Your task to perform on an android device: What's on my calendar tomorrow? Image 0: 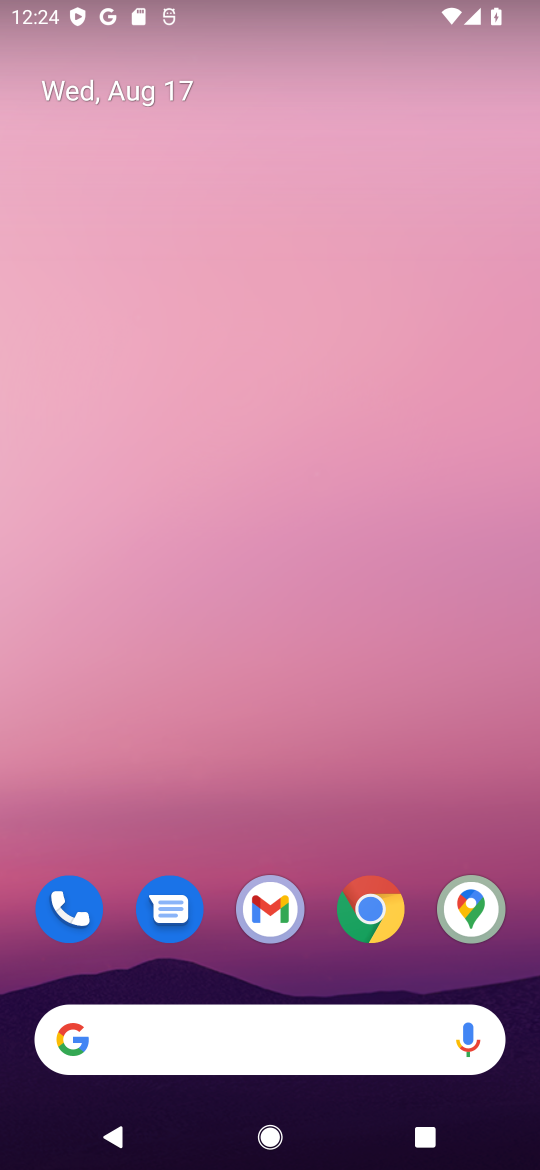
Step 0: drag from (326, 970) to (312, 162)
Your task to perform on an android device: What's on my calendar tomorrow? Image 1: 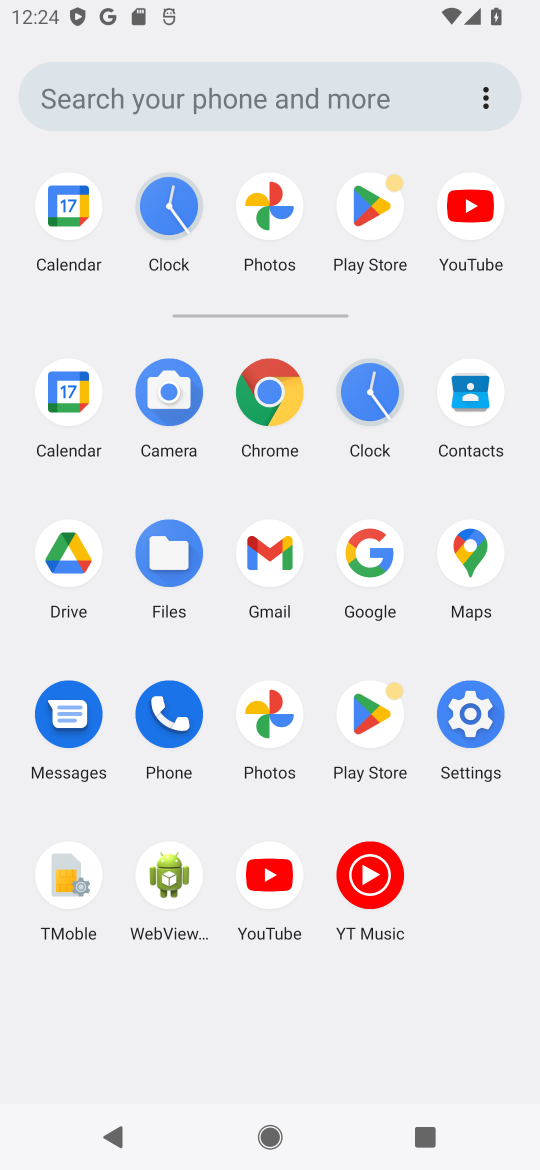
Step 1: click (74, 201)
Your task to perform on an android device: What's on my calendar tomorrow? Image 2: 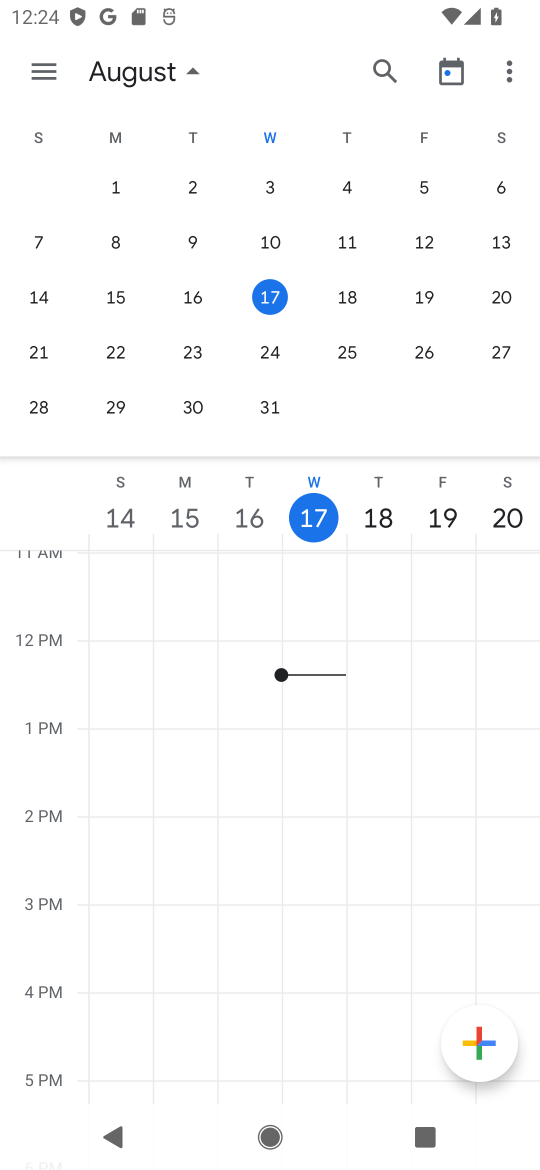
Step 2: click (36, 65)
Your task to perform on an android device: What's on my calendar tomorrow? Image 3: 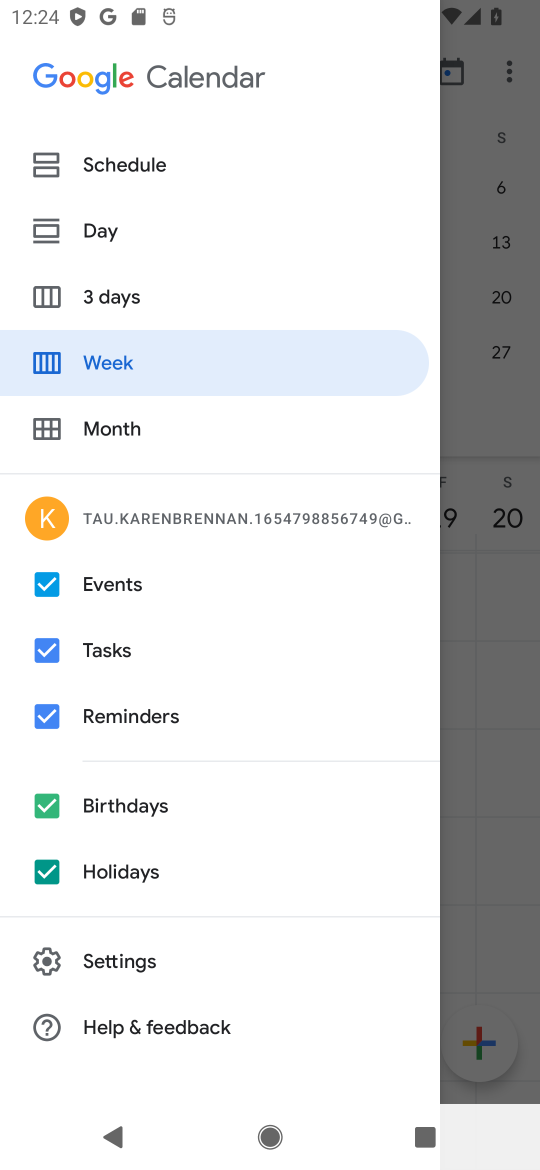
Step 3: click (110, 228)
Your task to perform on an android device: What's on my calendar tomorrow? Image 4: 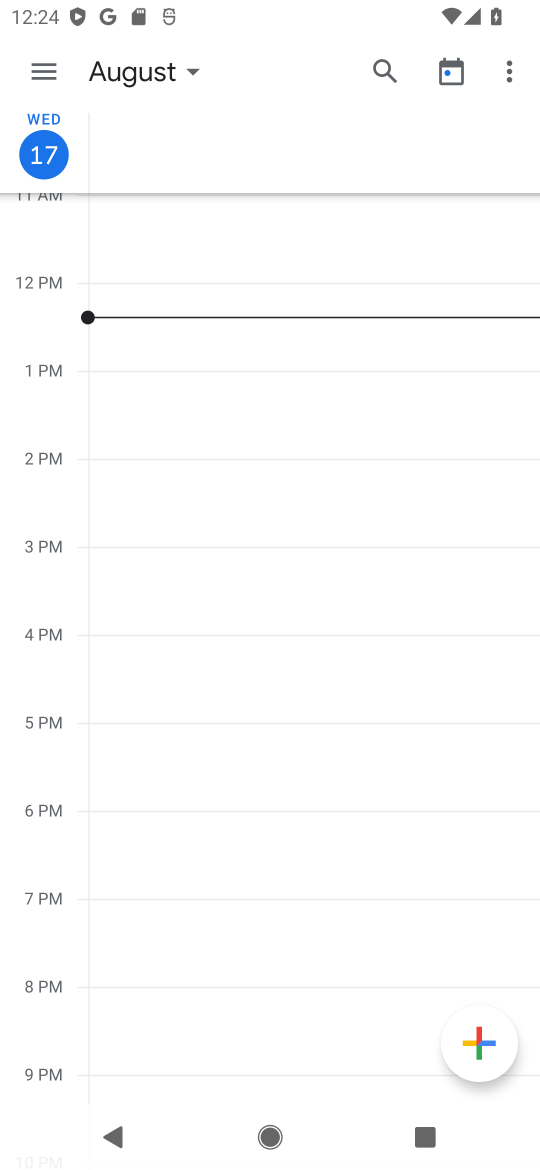
Step 4: click (192, 70)
Your task to perform on an android device: What's on my calendar tomorrow? Image 5: 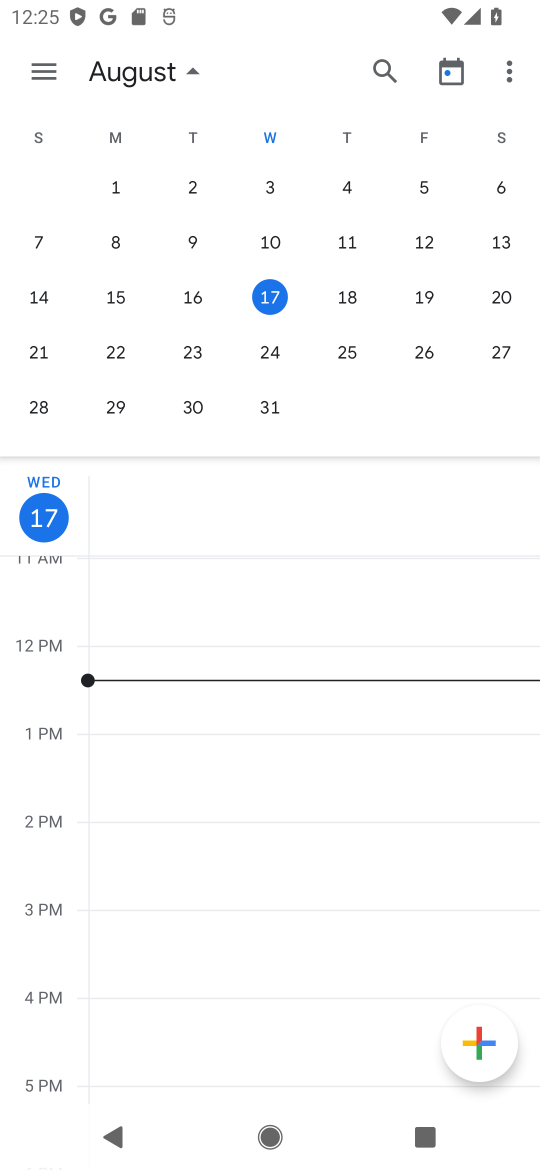
Step 5: click (350, 294)
Your task to perform on an android device: What's on my calendar tomorrow? Image 6: 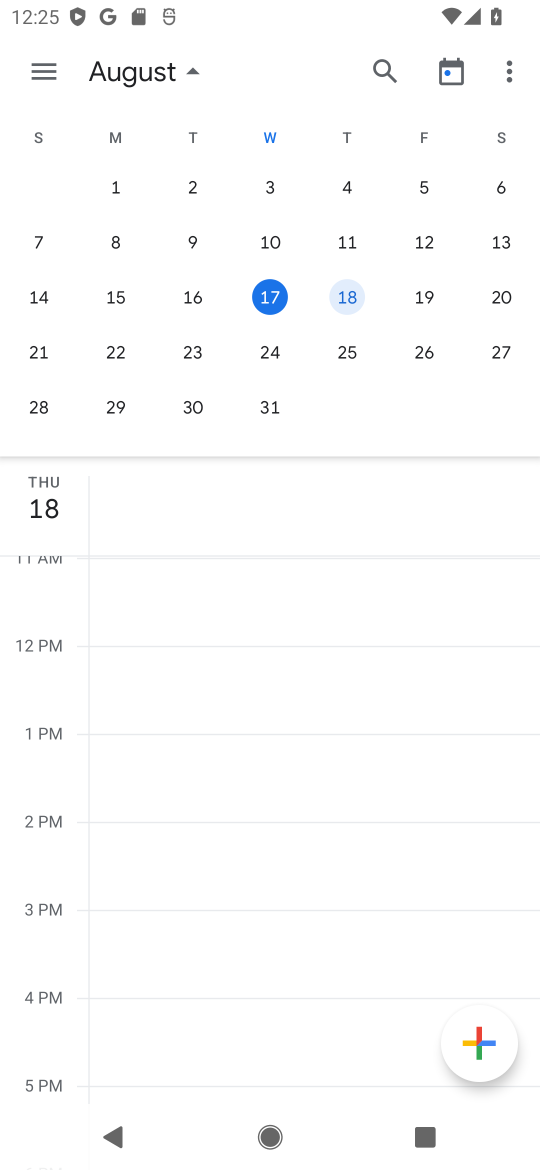
Step 6: task complete